Your task to perform on an android device: toggle airplane mode Image 0: 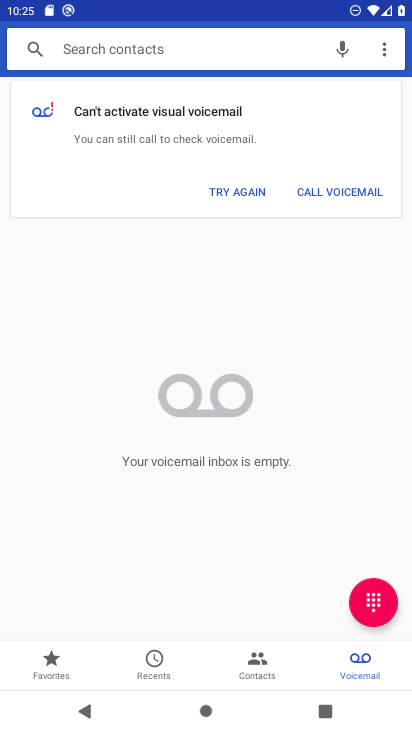
Step 0: press home button
Your task to perform on an android device: toggle airplane mode Image 1: 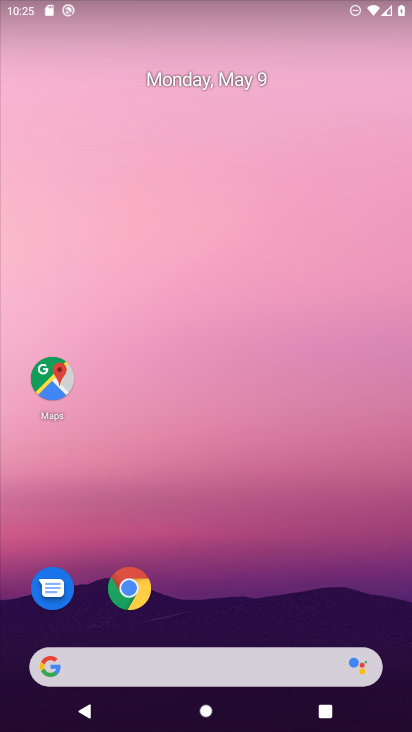
Step 1: drag from (191, 596) to (192, 306)
Your task to perform on an android device: toggle airplane mode Image 2: 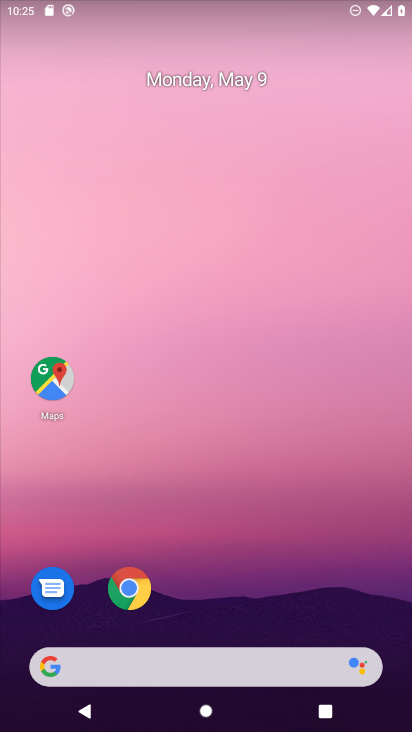
Step 2: drag from (287, 585) to (302, 3)
Your task to perform on an android device: toggle airplane mode Image 3: 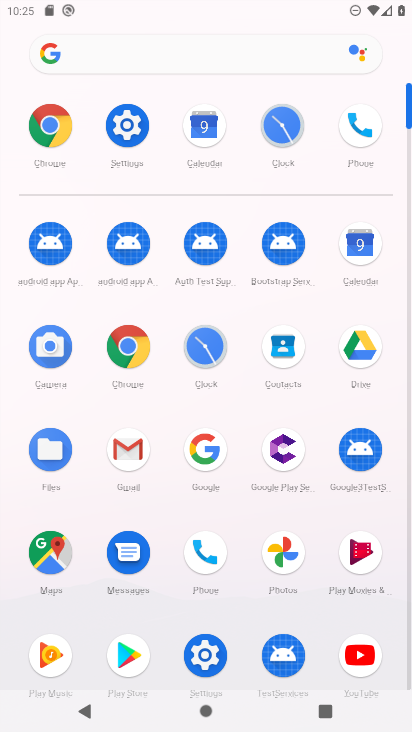
Step 3: click (128, 168)
Your task to perform on an android device: toggle airplane mode Image 4: 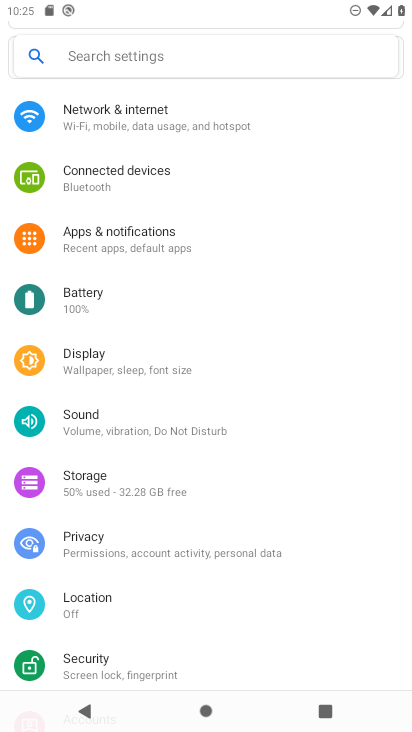
Step 4: click (167, 118)
Your task to perform on an android device: toggle airplane mode Image 5: 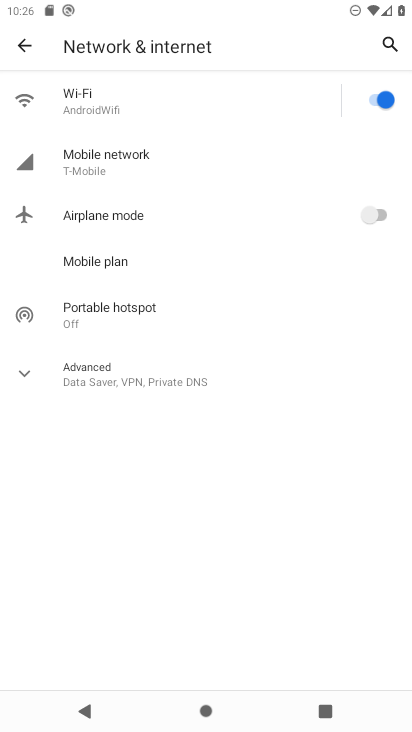
Step 5: click (385, 214)
Your task to perform on an android device: toggle airplane mode Image 6: 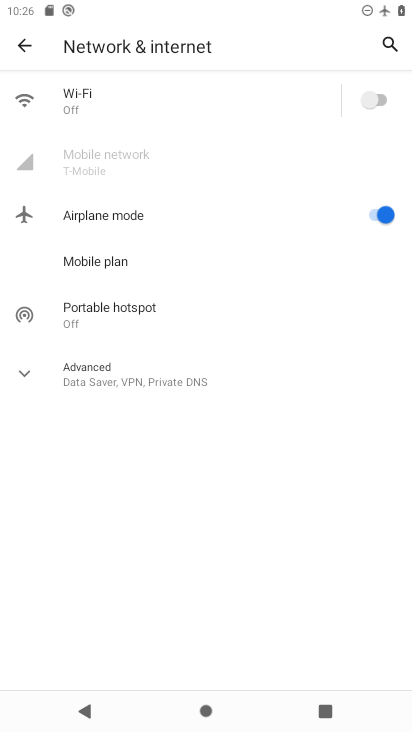
Step 6: task complete